Your task to perform on an android device: turn vacation reply on in the gmail app Image 0: 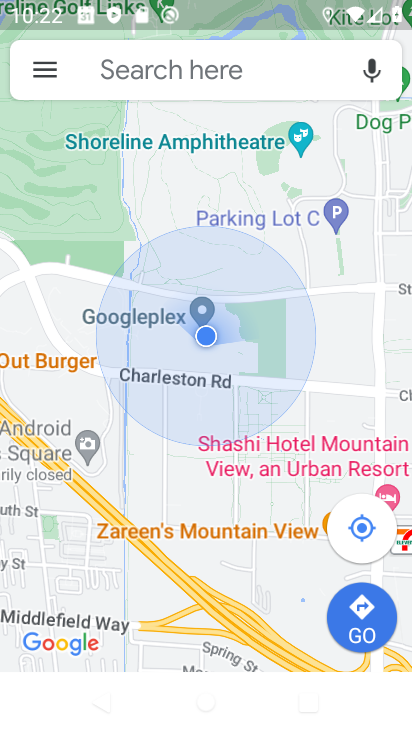
Step 0: press home button
Your task to perform on an android device: turn vacation reply on in the gmail app Image 1: 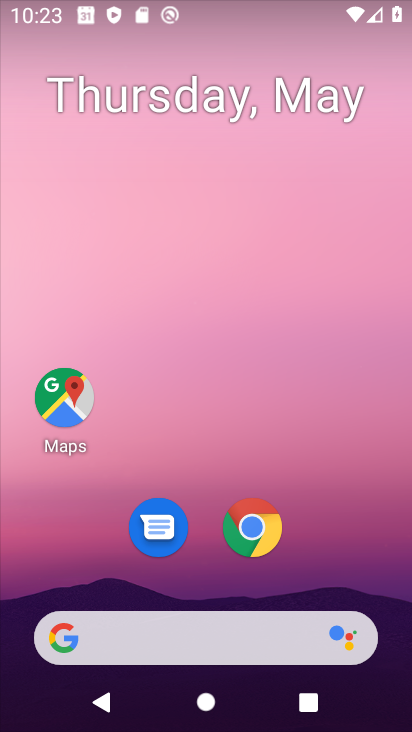
Step 1: drag from (230, 717) to (230, 146)
Your task to perform on an android device: turn vacation reply on in the gmail app Image 2: 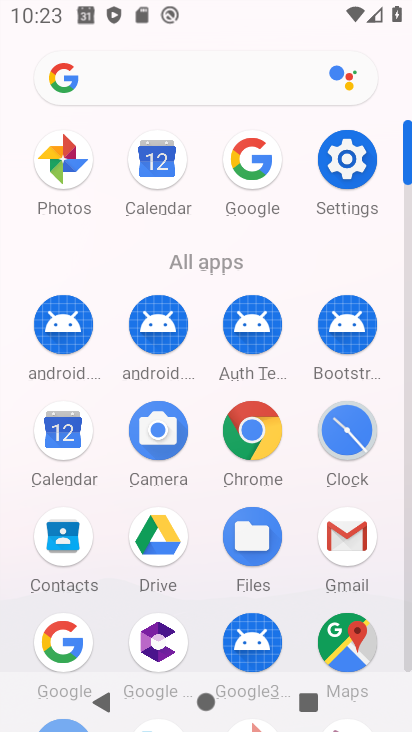
Step 2: click (347, 540)
Your task to perform on an android device: turn vacation reply on in the gmail app Image 3: 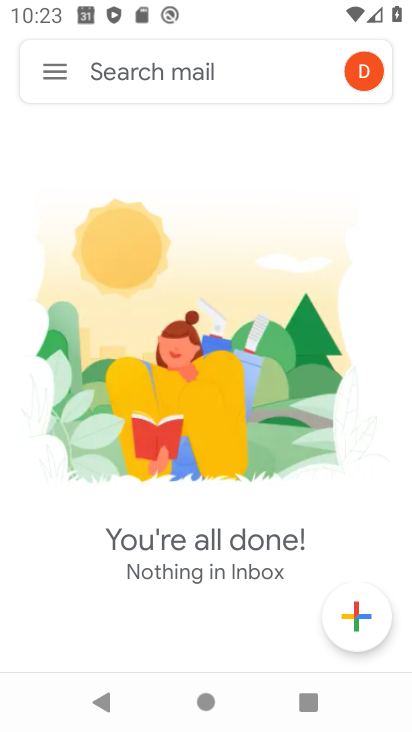
Step 3: click (56, 70)
Your task to perform on an android device: turn vacation reply on in the gmail app Image 4: 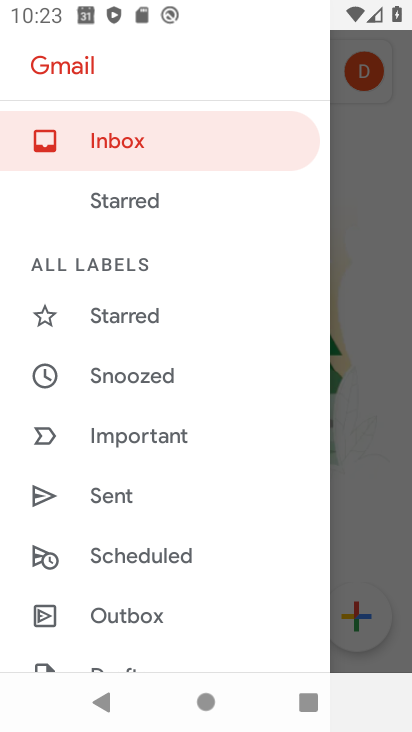
Step 4: drag from (151, 634) to (175, 274)
Your task to perform on an android device: turn vacation reply on in the gmail app Image 5: 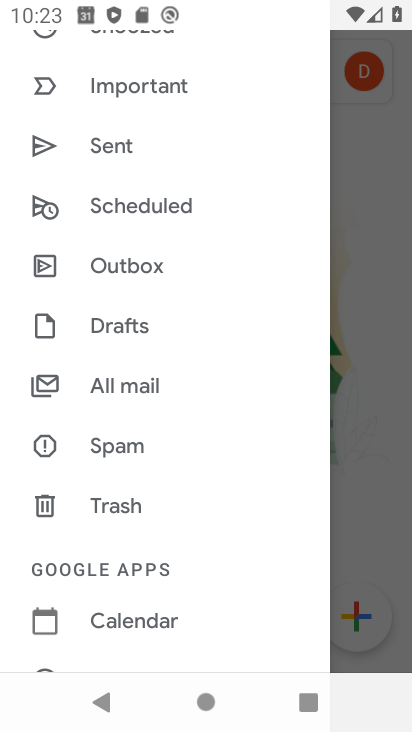
Step 5: drag from (163, 646) to (168, 133)
Your task to perform on an android device: turn vacation reply on in the gmail app Image 6: 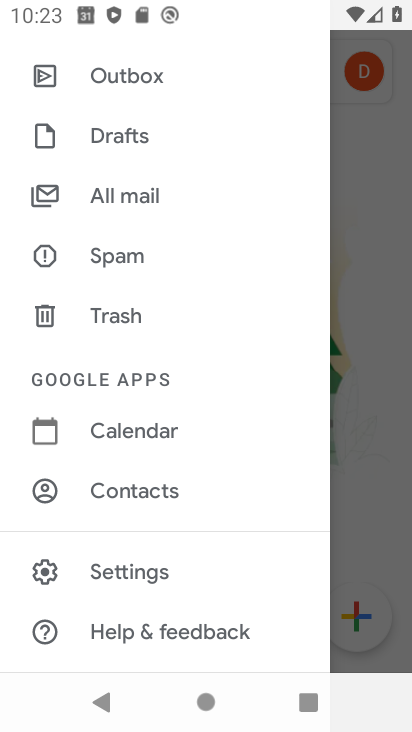
Step 6: click (122, 566)
Your task to perform on an android device: turn vacation reply on in the gmail app Image 7: 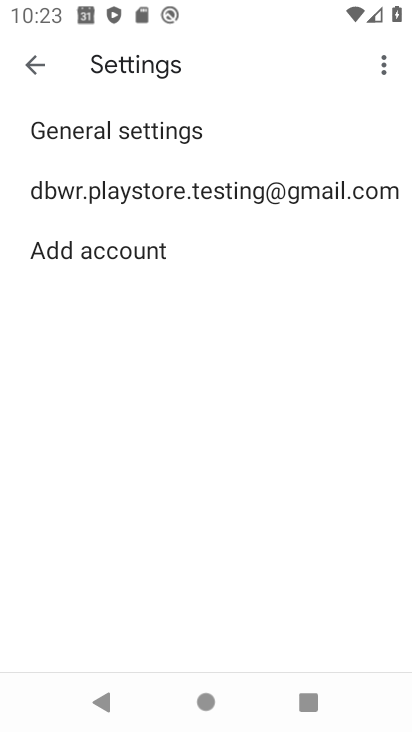
Step 7: click (222, 190)
Your task to perform on an android device: turn vacation reply on in the gmail app Image 8: 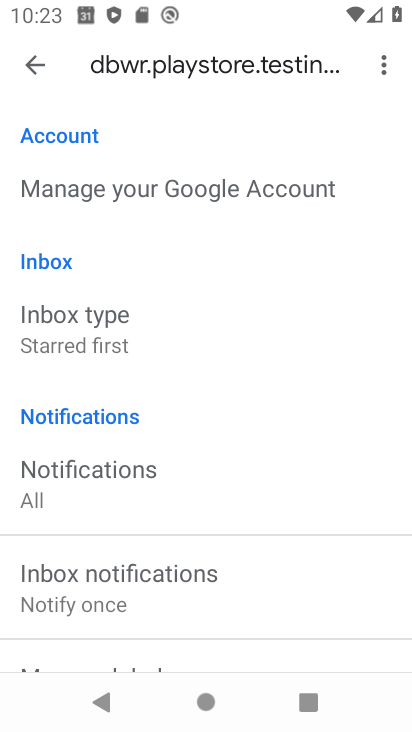
Step 8: drag from (149, 567) to (157, 260)
Your task to perform on an android device: turn vacation reply on in the gmail app Image 9: 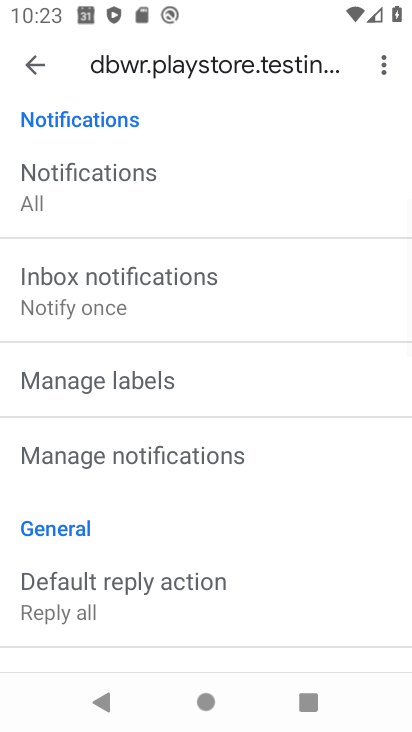
Step 9: drag from (152, 638) to (156, 321)
Your task to perform on an android device: turn vacation reply on in the gmail app Image 10: 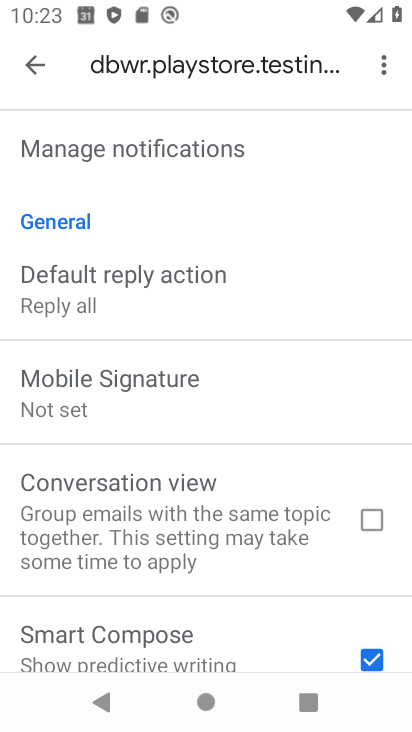
Step 10: drag from (187, 642) to (187, 191)
Your task to perform on an android device: turn vacation reply on in the gmail app Image 11: 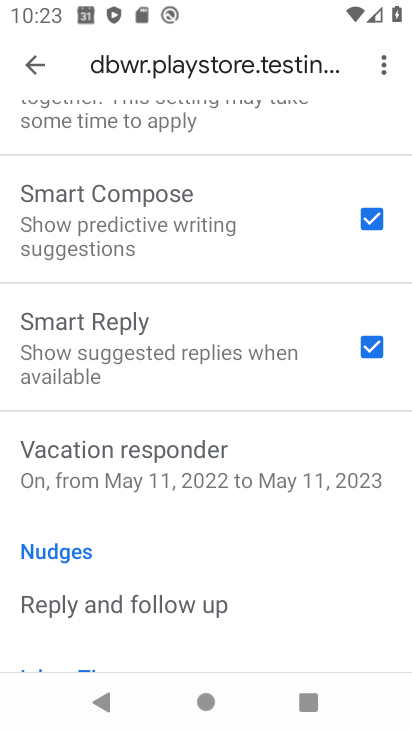
Step 11: click (170, 460)
Your task to perform on an android device: turn vacation reply on in the gmail app Image 12: 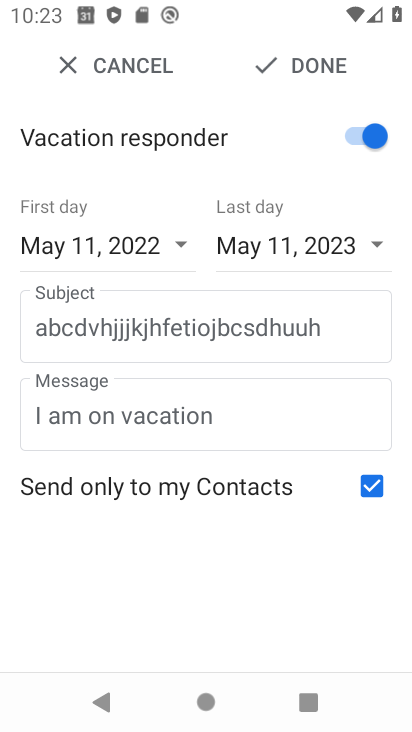
Step 12: task complete